Your task to perform on an android device: Go to settings Image 0: 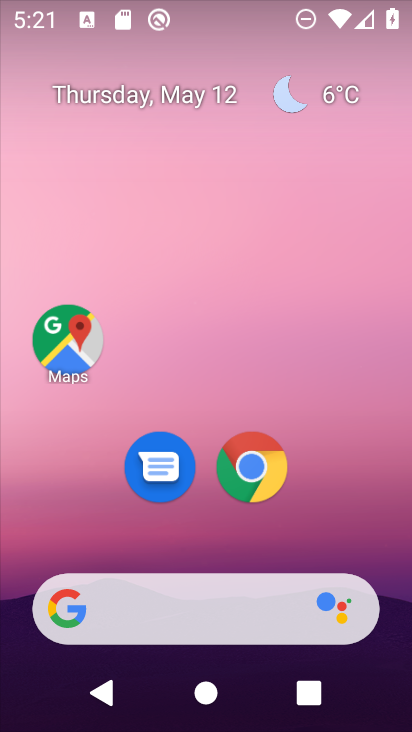
Step 0: drag from (325, 635) to (280, 31)
Your task to perform on an android device: Go to settings Image 1: 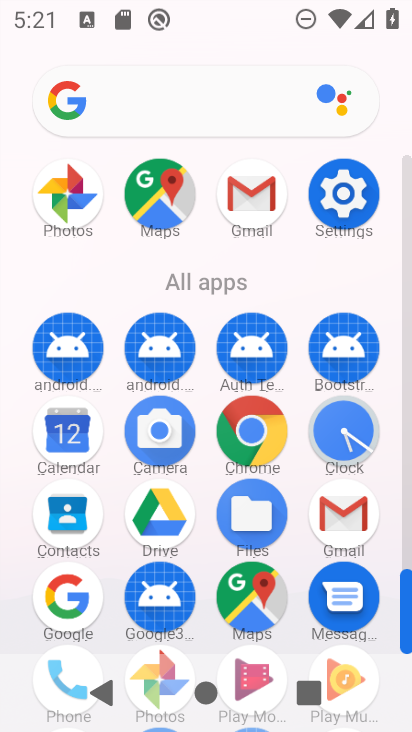
Step 1: click (351, 193)
Your task to perform on an android device: Go to settings Image 2: 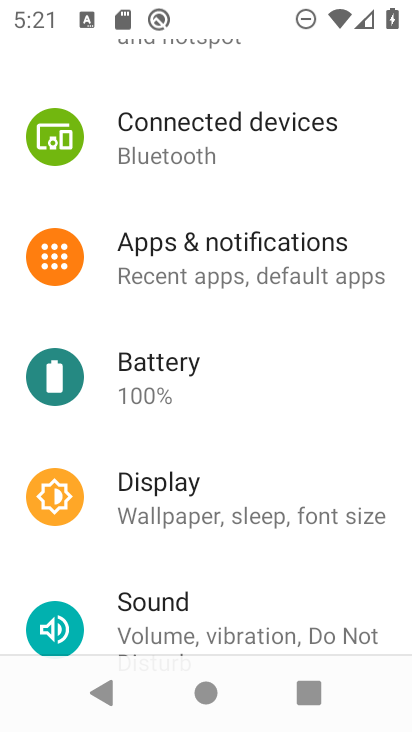
Step 2: task complete